Your task to perform on an android device: turn on airplane mode Image 0: 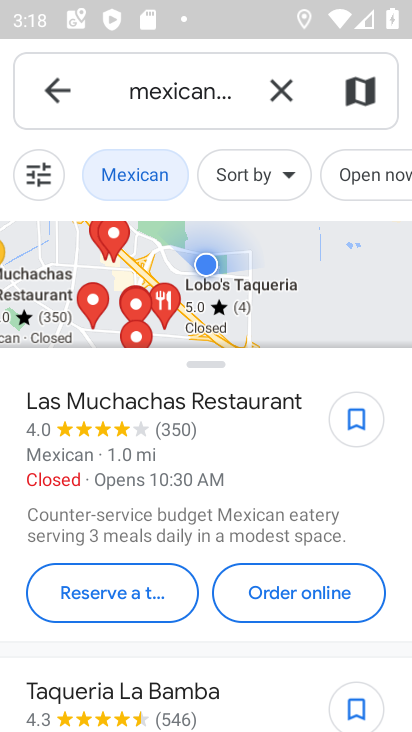
Step 0: press home button
Your task to perform on an android device: turn on airplane mode Image 1: 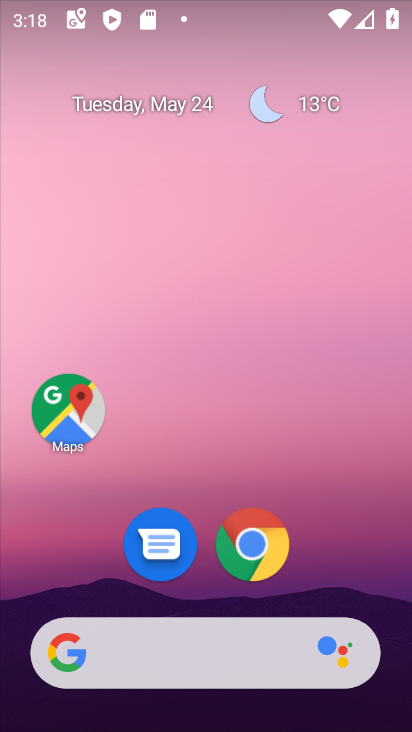
Step 1: drag from (355, 546) to (302, 0)
Your task to perform on an android device: turn on airplane mode Image 2: 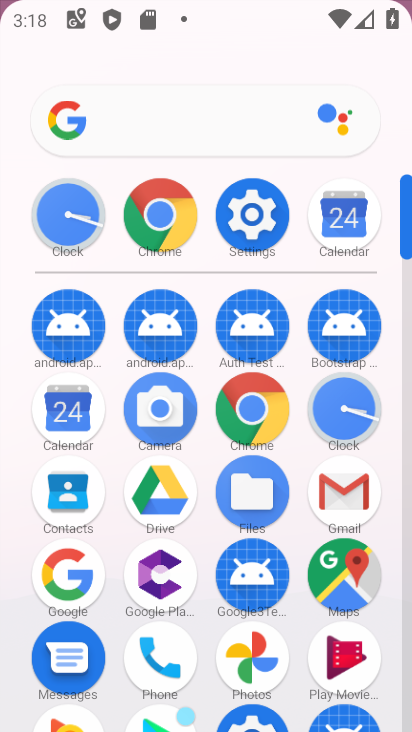
Step 2: click (261, 206)
Your task to perform on an android device: turn on airplane mode Image 3: 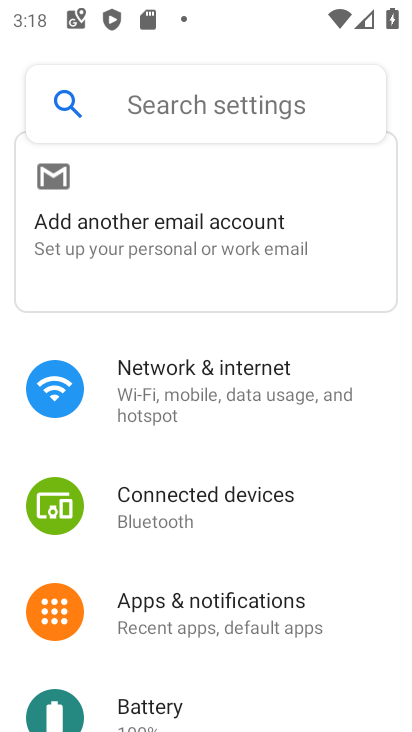
Step 3: click (188, 421)
Your task to perform on an android device: turn on airplane mode Image 4: 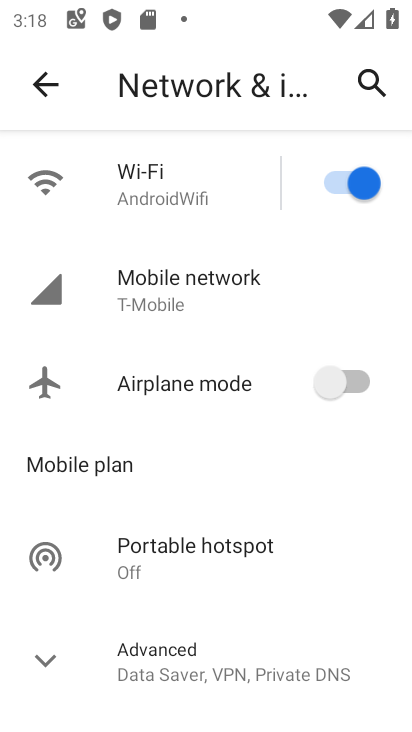
Step 4: click (407, 372)
Your task to perform on an android device: turn on airplane mode Image 5: 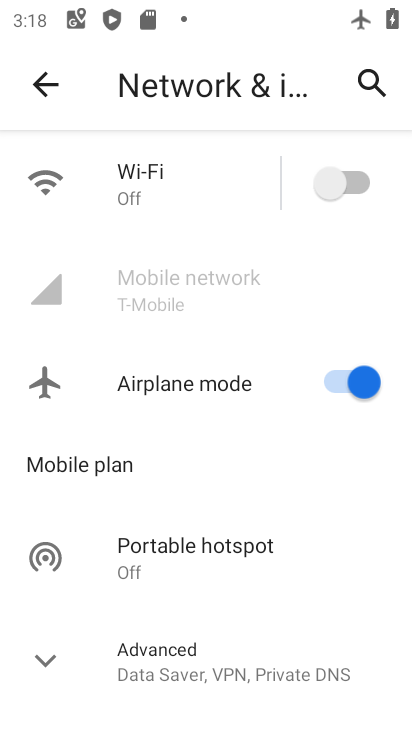
Step 5: task complete